Your task to perform on an android device: Open battery settings Image 0: 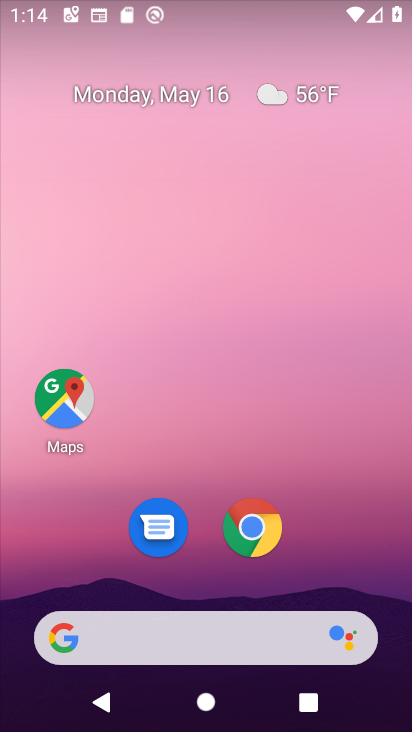
Step 0: click (97, 80)
Your task to perform on an android device: Open battery settings Image 1: 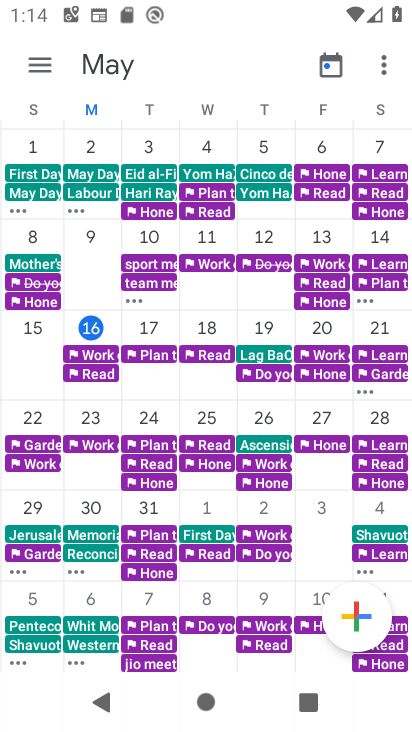
Step 1: press home button
Your task to perform on an android device: Open battery settings Image 2: 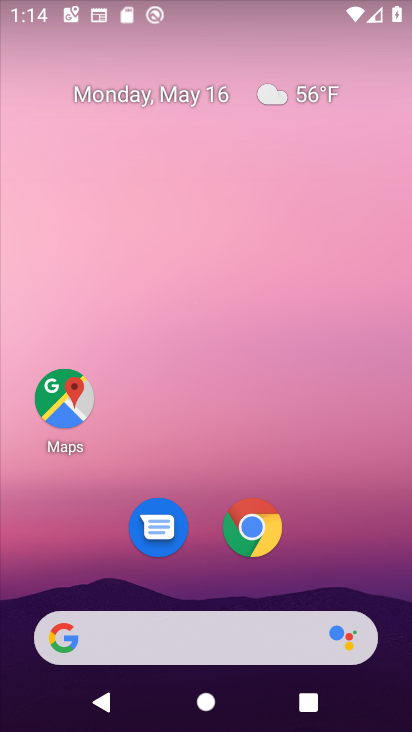
Step 2: drag from (195, 593) to (11, 342)
Your task to perform on an android device: Open battery settings Image 3: 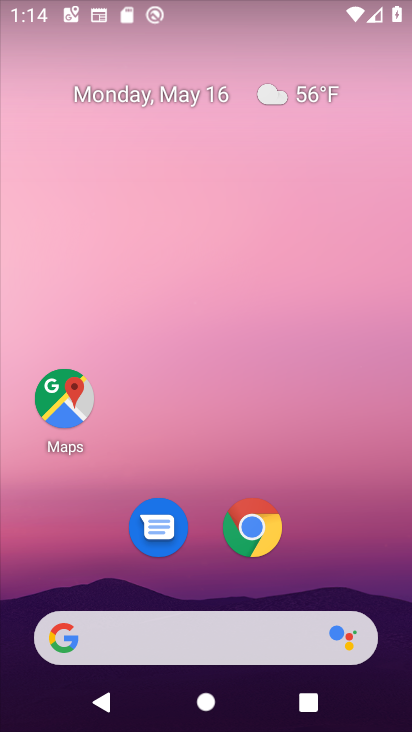
Step 3: click (163, 174)
Your task to perform on an android device: Open battery settings Image 4: 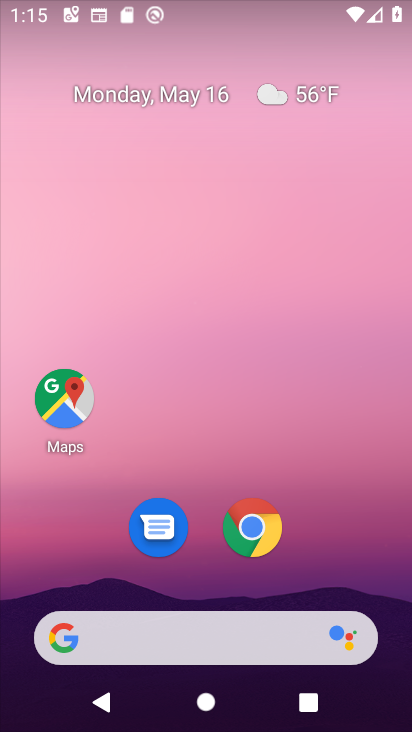
Step 4: drag from (214, 635) to (57, 29)
Your task to perform on an android device: Open battery settings Image 5: 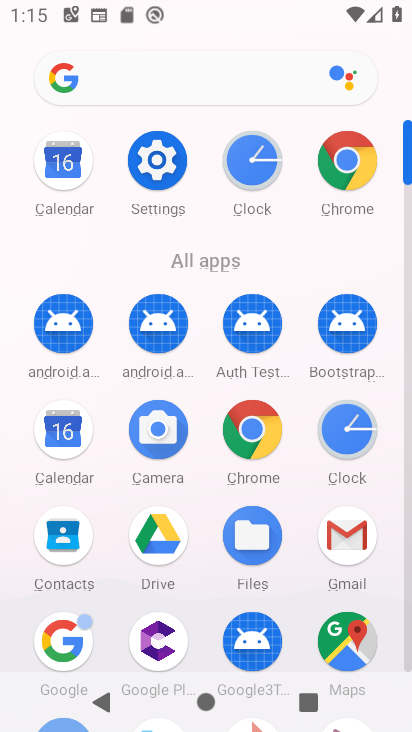
Step 5: click (145, 172)
Your task to perform on an android device: Open battery settings Image 6: 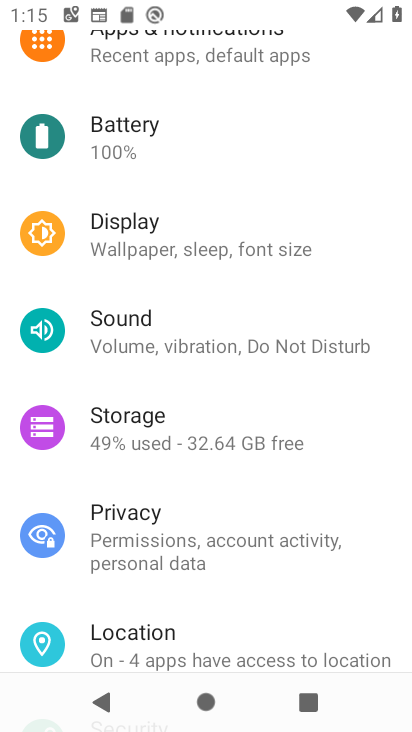
Step 6: click (131, 143)
Your task to perform on an android device: Open battery settings Image 7: 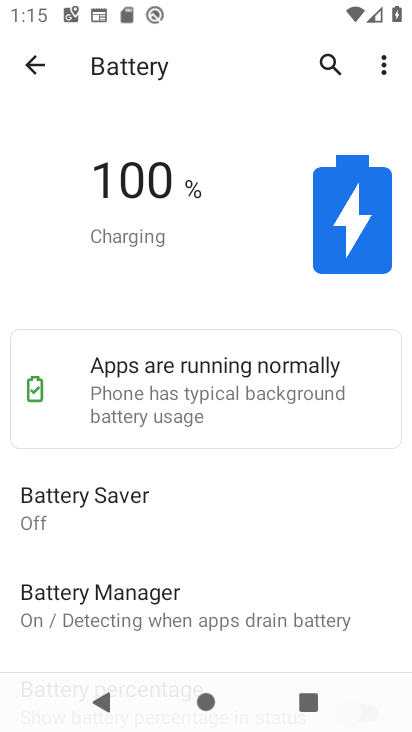
Step 7: task complete